Your task to perform on an android device: Find coffee shops on Maps Image 0: 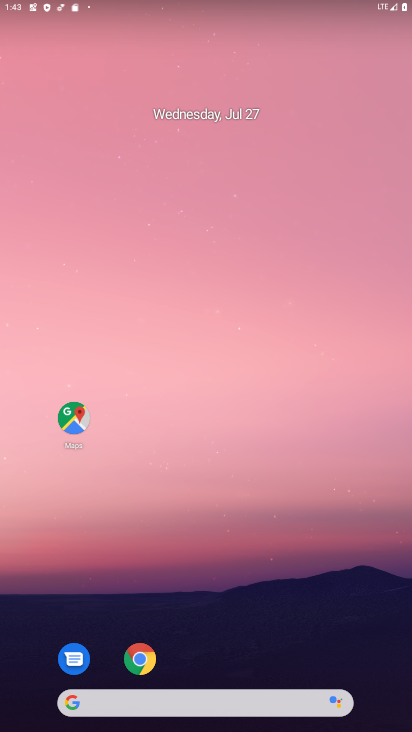
Step 0: drag from (193, 715) to (207, 86)
Your task to perform on an android device: Find coffee shops on Maps Image 1: 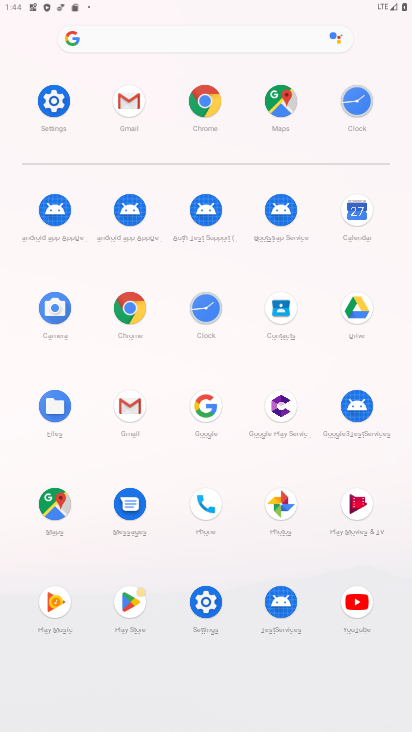
Step 1: click (54, 507)
Your task to perform on an android device: Find coffee shops on Maps Image 2: 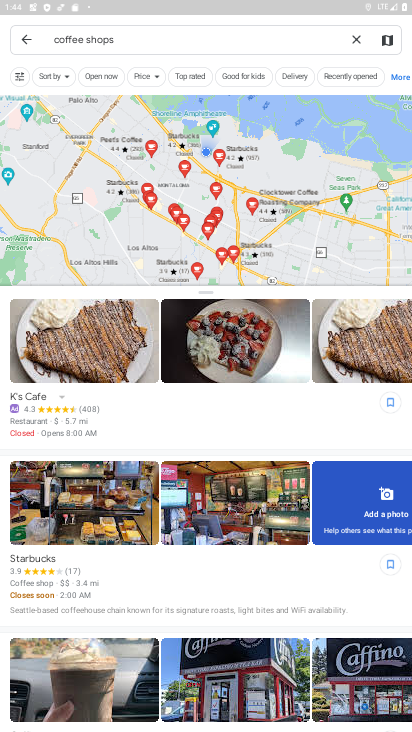
Step 2: task complete